Your task to perform on an android device: change timer sound Image 0: 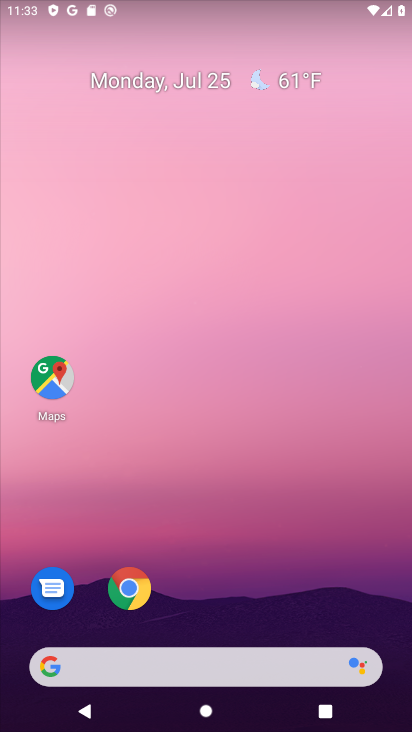
Step 0: press home button
Your task to perform on an android device: change timer sound Image 1: 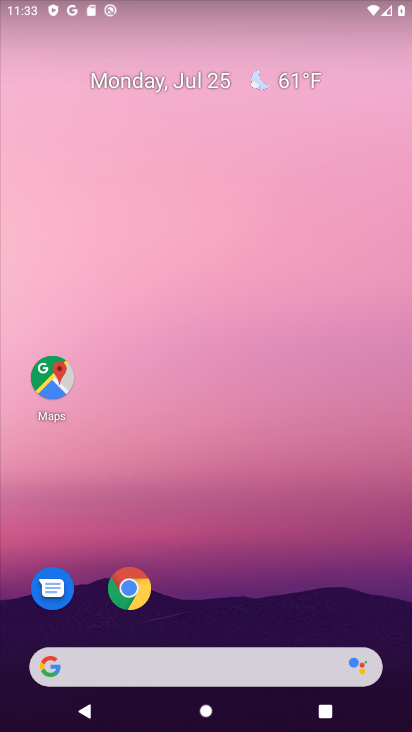
Step 1: drag from (215, 626) to (220, 1)
Your task to perform on an android device: change timer sound Image 2: 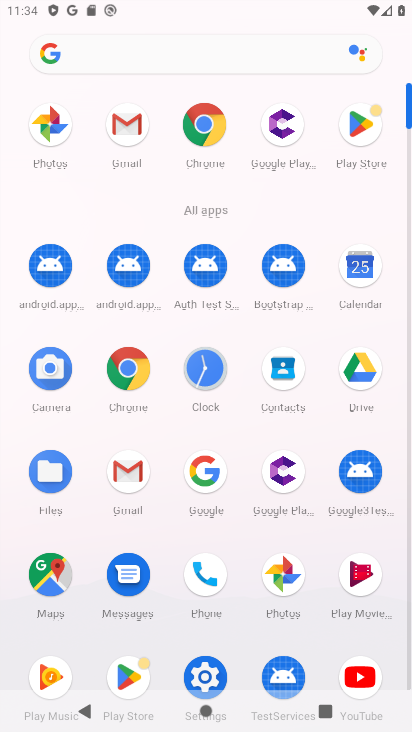
Step 2: click (201, 362)
Your task to perform on an android device: change timer sound Image 3: 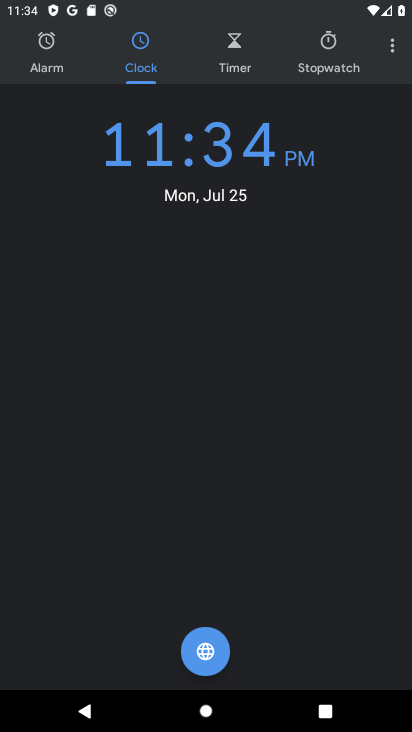
Step 3: click (392, 45)
Your task to perform on an android device: change timer sound Image 4: 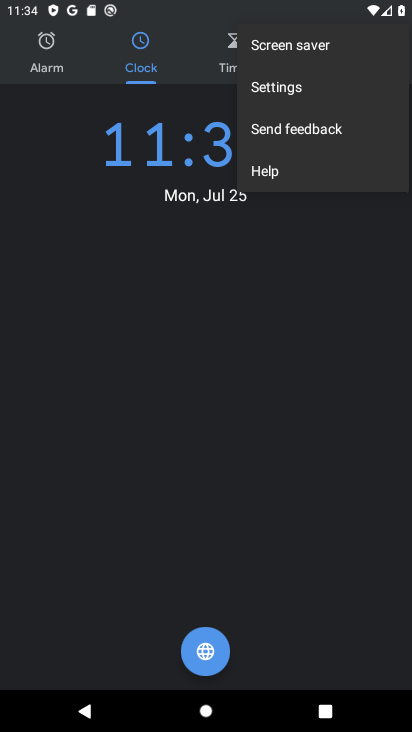
Step 4: click (311, 87)
Your task to perform on an android device: change timer sound Image 5: 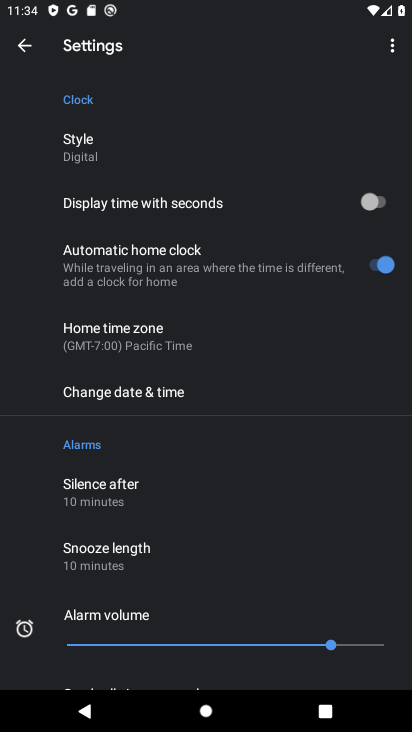
Step 5: drag from (181, 591) to (229, 121)
Your task to perform on an android device: change timer sound Image 6: 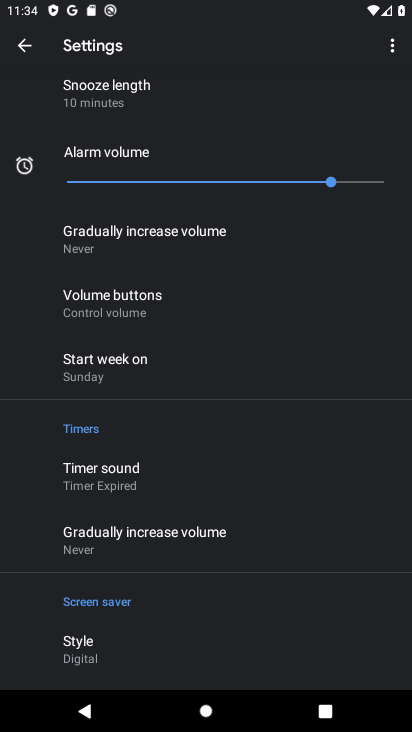
Step 6: click (163, 476)
Your task to perform on an android device: change timer sound Image 7: 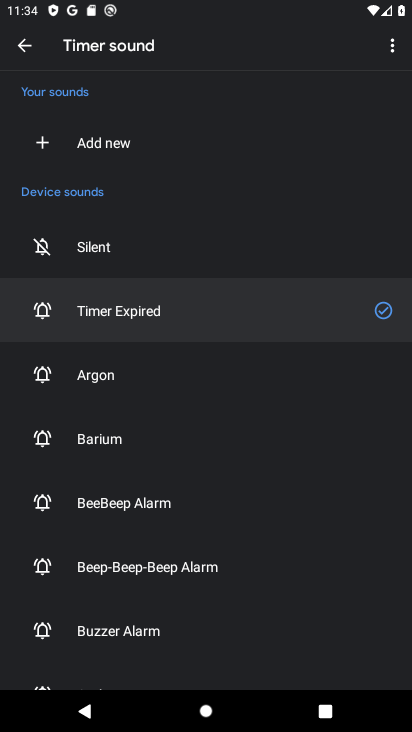
Step 7: click (196, 501)
Your task to perform on an android device: change timer sound Image 8: 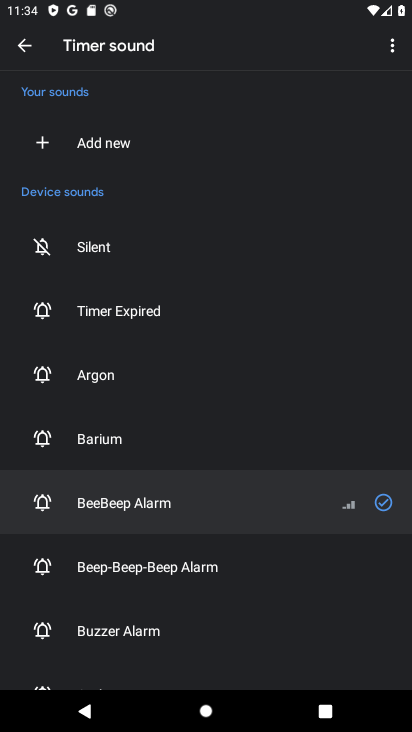
Step 8: task complete